Your task to perform on an android device: Open the map Image 0: 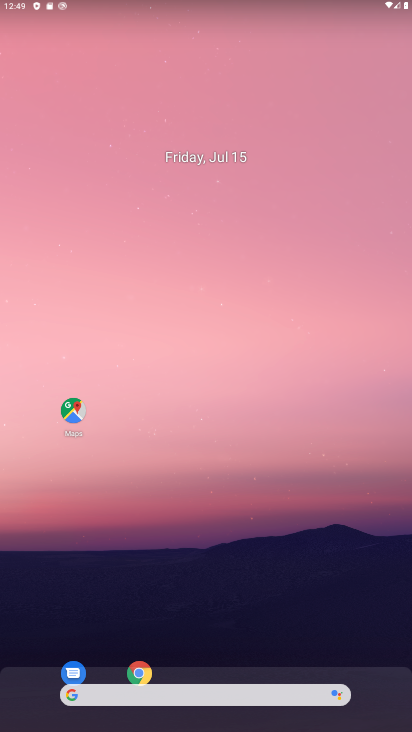
Step 0: click (72, 414)
Your task to perform on an android device: Open the map Image 1: 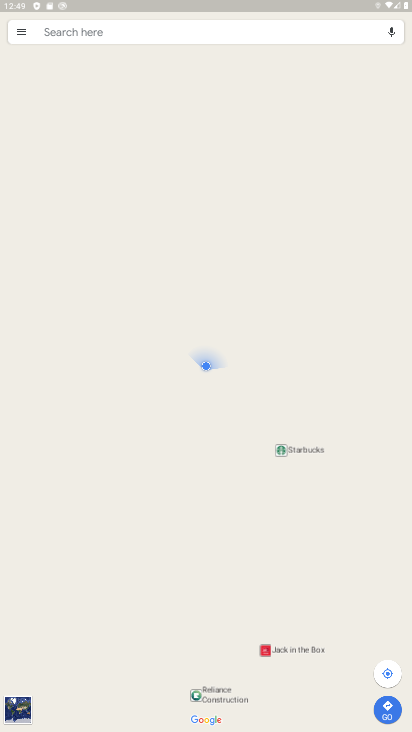
Step 1: task complete